Your task to perform on an android device: see creations saved in the google photos Image 0: 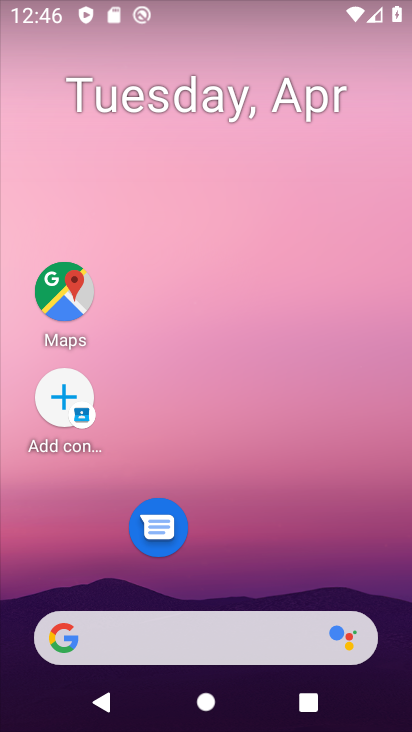
Step 0: drag from (278, 585) to (278, 29)
Your task to perform on an android device: see creations saved in the google photos Image 1: 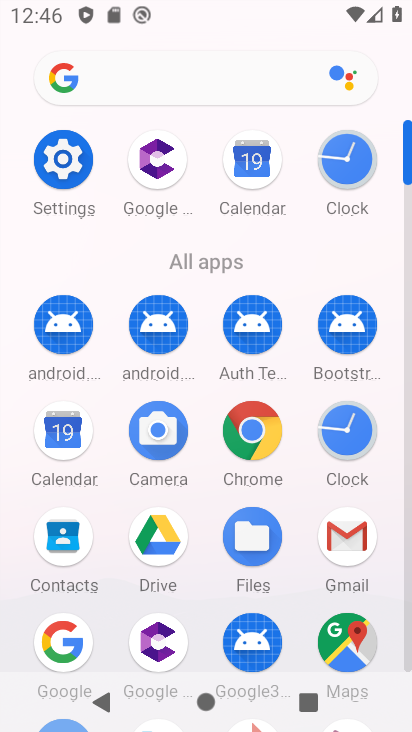
Step 1: drag from (219, 599) to (238, 288)
Your task to perform on an android device: see creations saved in the google photos Image 2: 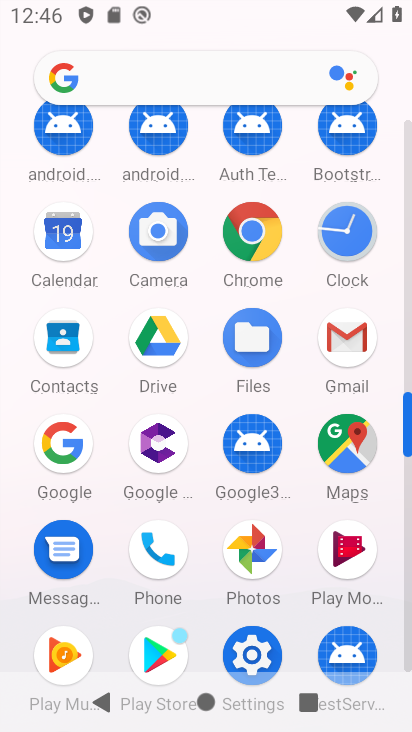
Step 2: drag from (188, 562) to (216, 410)
Your task to perform on an android device: see creations saved in the google photos Image 3: 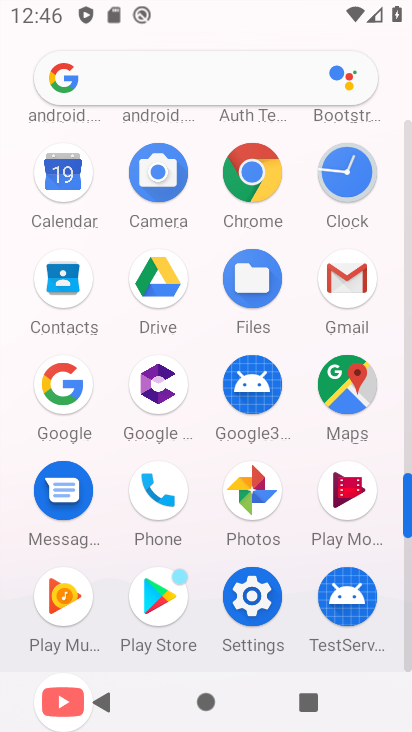
Step 3: click (157, 599)
Your task to perform on an android device: see creations saved in the google photos Image 4: 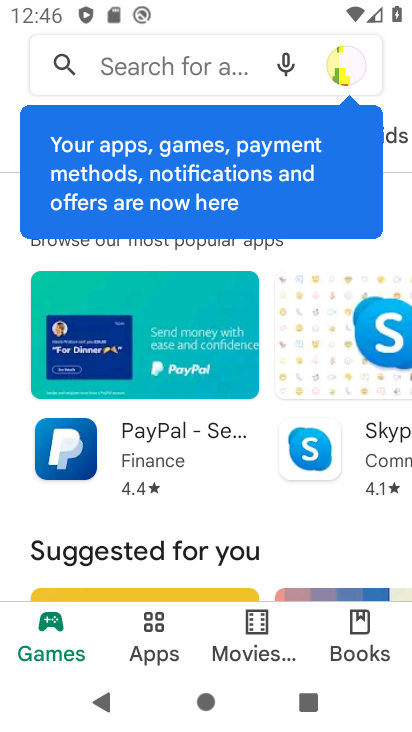
Step 4: click (161, 619)
Your task to perform on an android device: see creations saved in the google photos Image 5: 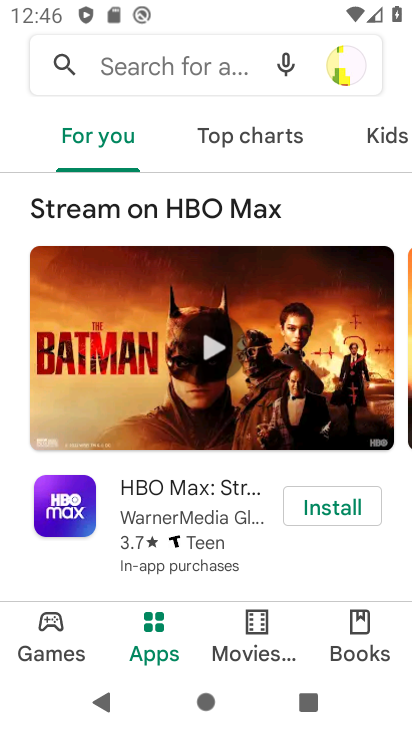
Step 5: click (159, 625)
Your task to perform on an android device: see creations saved in the google photos Image 6: 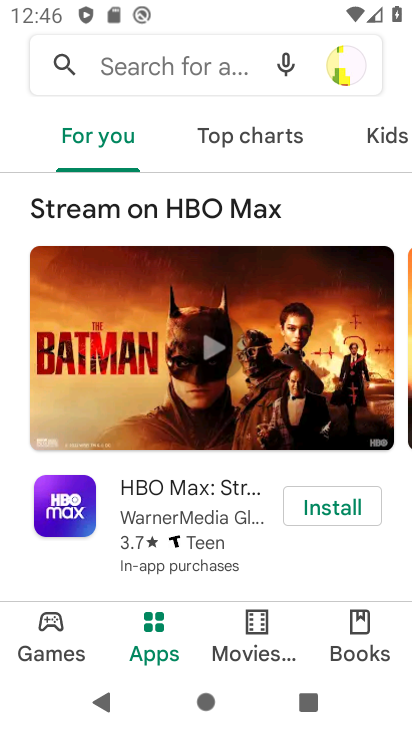
Step 6: drag from (287, 556) to (332, 223)
Your task to perform on an android device: see creations saved in the google photos Image 7: 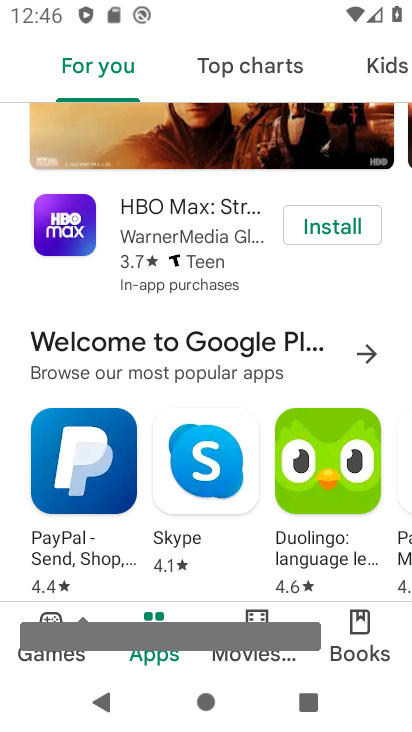
Step 7: drag from (266, 524) to (307, 242)
Your task to perform on an android device: see creations saved in the google photos Image 8: 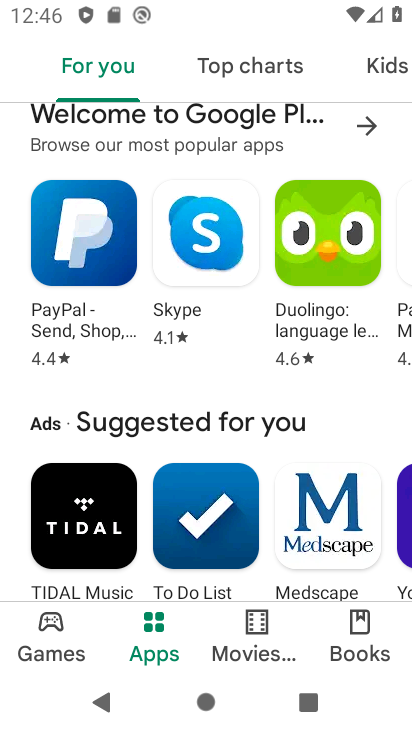
Step 8: drag from (285, 497) to (323, 193)
Your task to perform on an android device: see creations saved in the google photos Image 9: 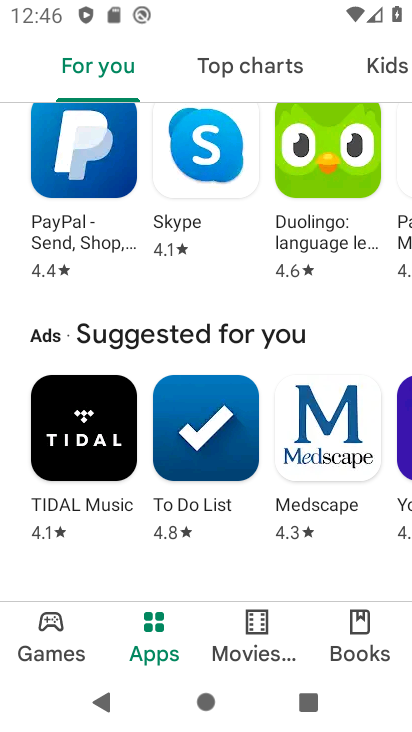
Step 9: drag from (292, 209) to (357, 528)
Your task to perform on an android device: see creations saved in the google photos Image 10: 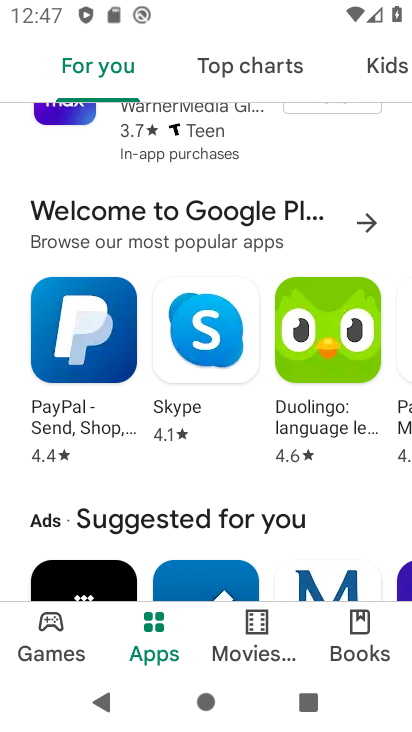
Step 10: drag from (280, 189) to (307, 502)
Your task to perform on an android device: see creations saved in the google photos Image 11: 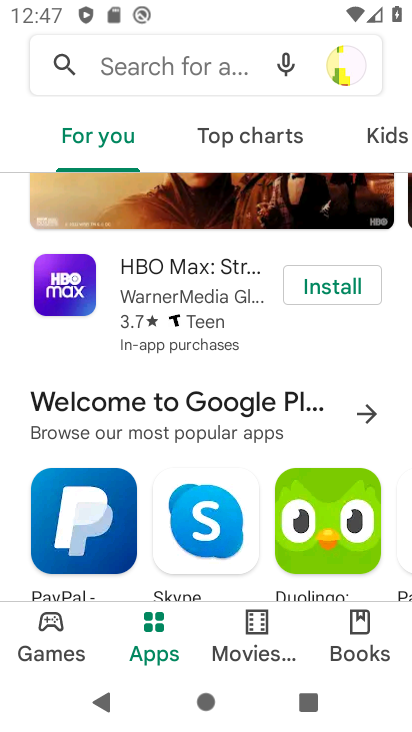
Step 11: drag from (305, 149) to (4, 156)
Your task to perform on an android device: see creations saved in the google photos Image 12: 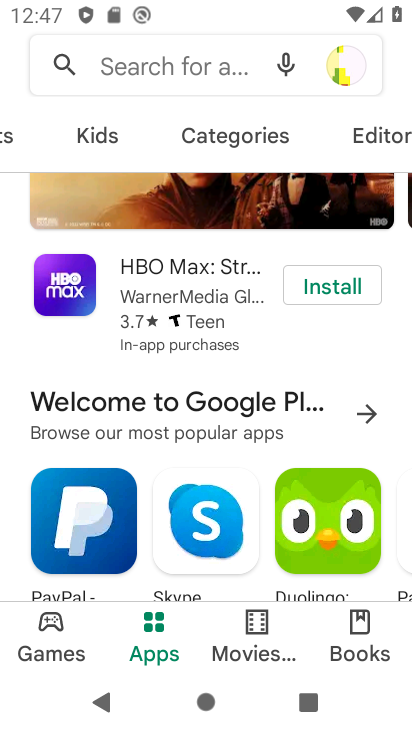
Step 12: drag from (264, 127) to (89, 166)
Your task to perform on an android device: see creations saved in the google photos Image 13: 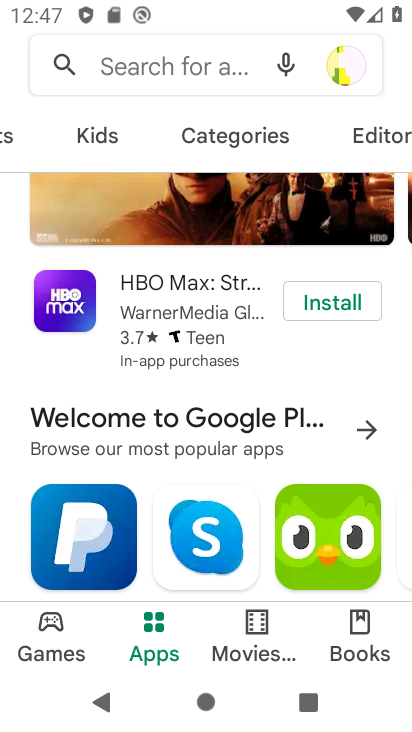
Step 13: drag from (324, 147) to (151, 152)
Your task to perform on an android device: see creations saved in the google photos Image 14: 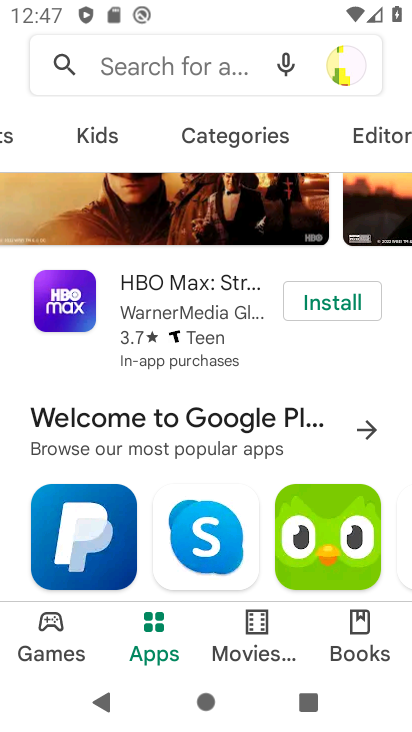
Step 14: drag from (309, 127) to (99, 123)
Your task to perform on an android device: see creations saved in the google photos Image 15: 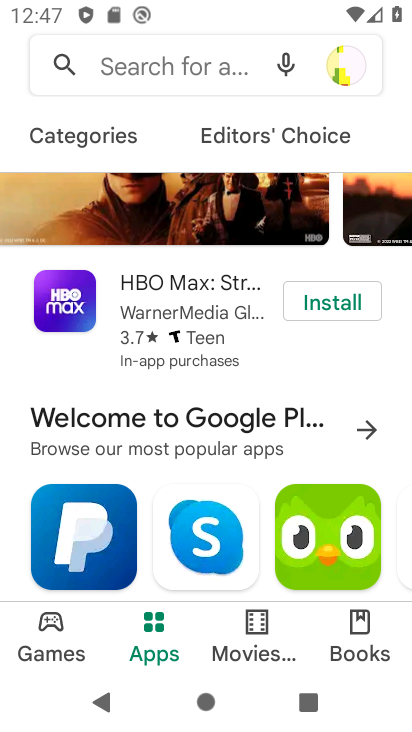
Step 15: drag from (375, 134) to (119, 131)
Your task to perform on an android device: see creations saved in the google photos Image 16: 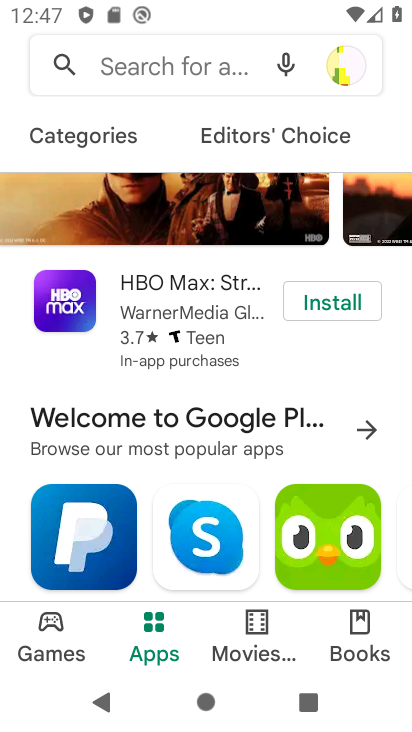
Step 16: drag from (166, 146) to (408, 121)
Your task to perform on an android device: see creations saved in the google photos Image 17: 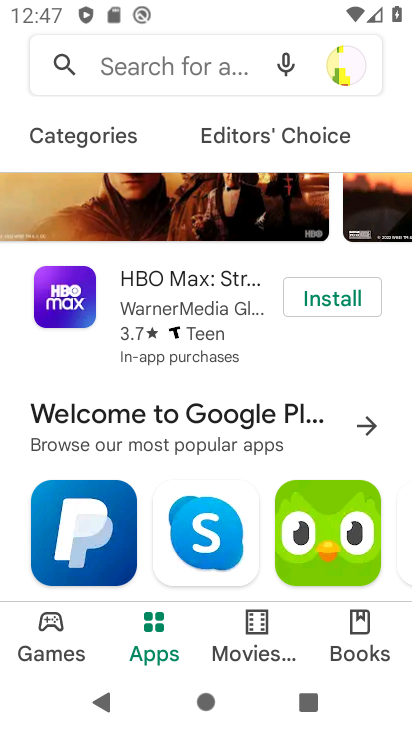
Step 17: click (125, 126)
Your task to perform on an android device: see creations saved in the google photos Image 18: 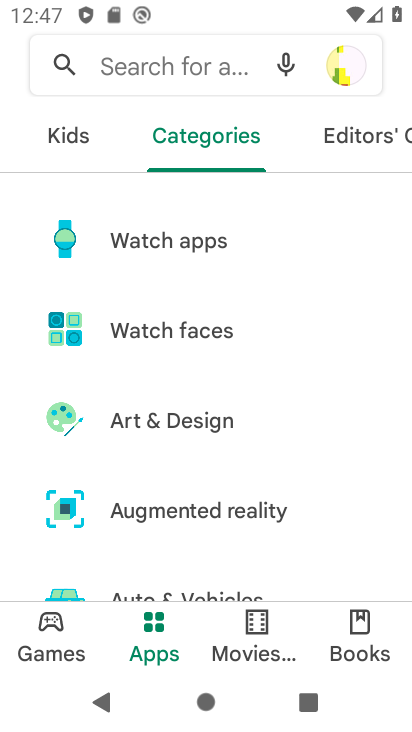
Step 18: drag from (262, 444) to (267, 320)
Your task to perform on an android device: see creations saved in the google photos Image 19: 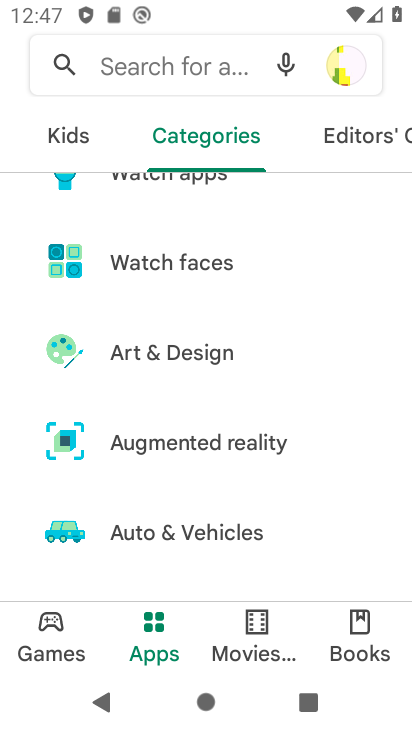
Step 19: drag from (316, 490) to (322, 344)
Your task to perform on an android device: see creations saved in the google photos Image 20: 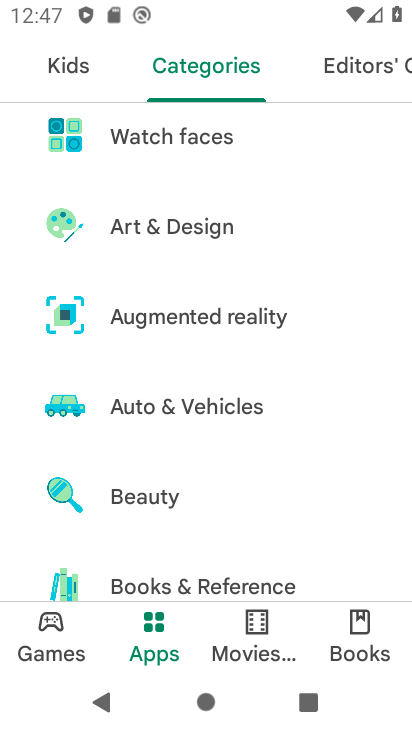
Step 20: drag from (294, 513) to (309, 318)
Your task to perform on an android device: see creations saved in the google photos Image 21: 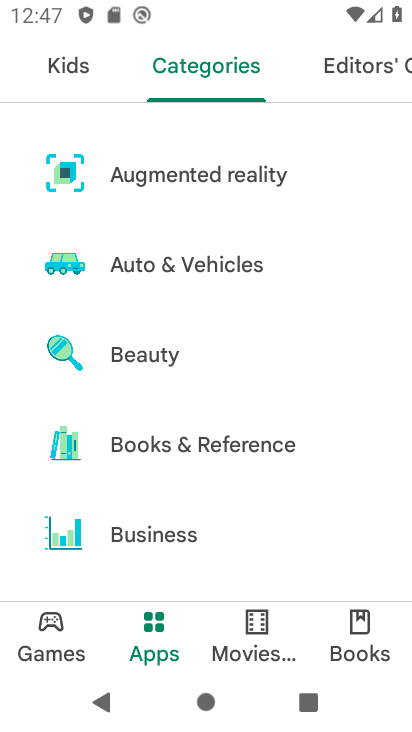
Step 21: drag from (295, 543) to (330, 337)
Your task to perform on an android device: see creations saved in the google photos Image 22: 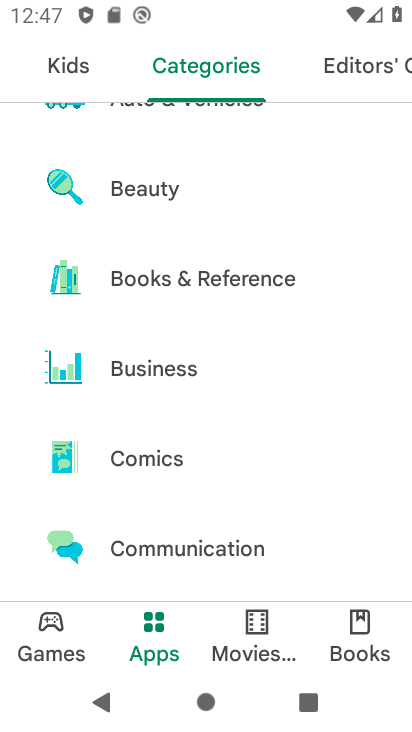
Step 22: drag from (254, 537) to (286, 330)
Your task to perform on an android device: see creations saved in the google photos Image 23: 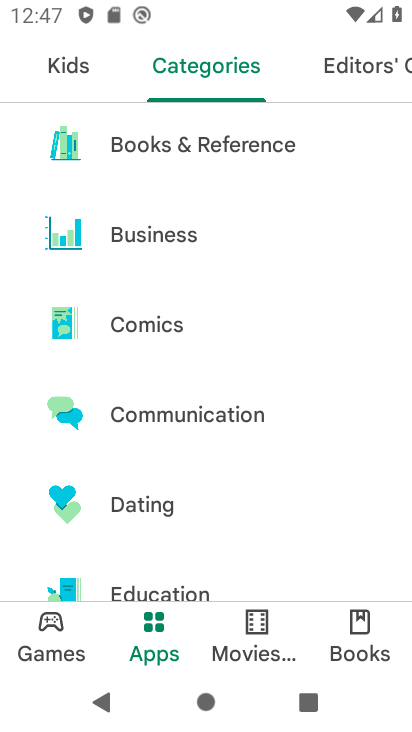
Step 23: drag from (239, 567) to (282, 360)
Your task to perform on an android device: see creations saved in the google photos Image 24: 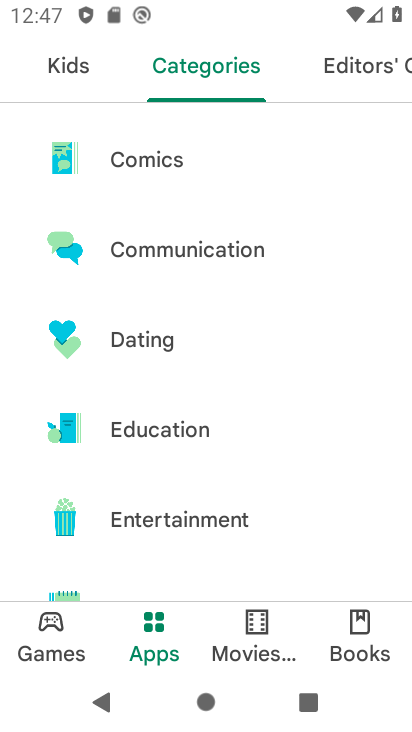
Step 24: drag from (280, 433) to (319, 314)
Your task to perform on an android device: see creations saved in the google photos Image 25: 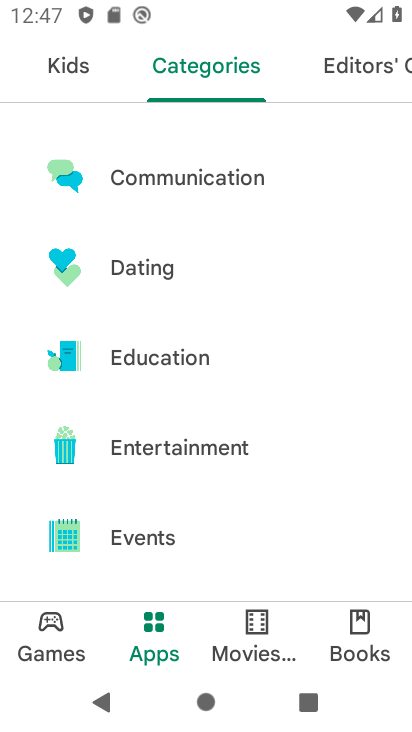
Step 25: drag from (279, 566) to (311, 356)
Your task to perform on an android device: see creations saved in the google photos Image 26: 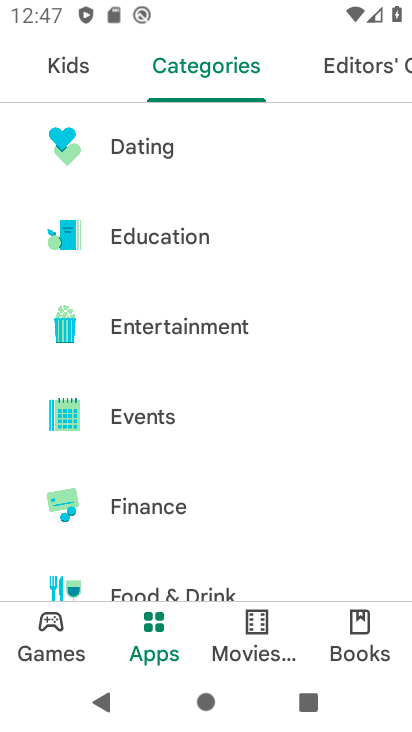
Step 26: drag from (295, 564) to (323, 323)
Your task to perform on an android device: see creations saved in the google photos Image 27: 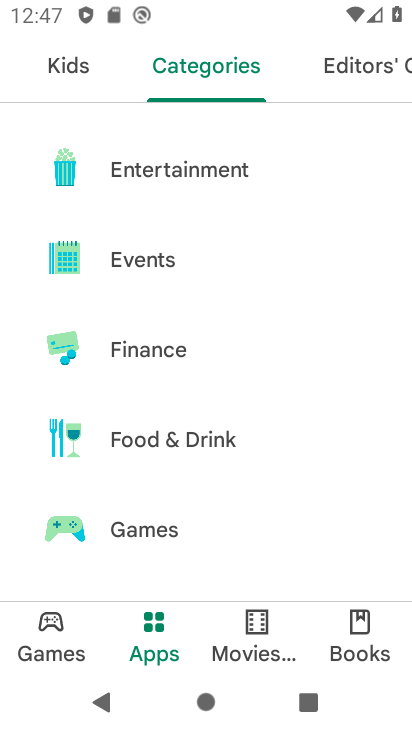
Step 27: drag from (253, 530) to (279, 361)
Your task to perform on an android device: see creations saved in the google photos Image 28: 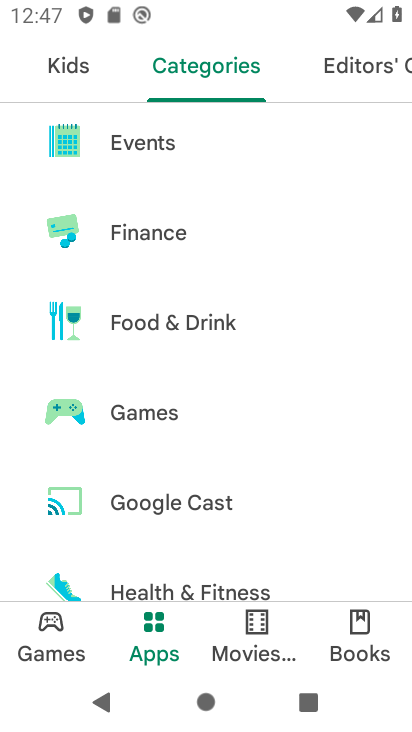
Step 28: drag from (243, 542) to (286, 277)
Your task to perform on an android device: see creations saved in the google photos Image 29: 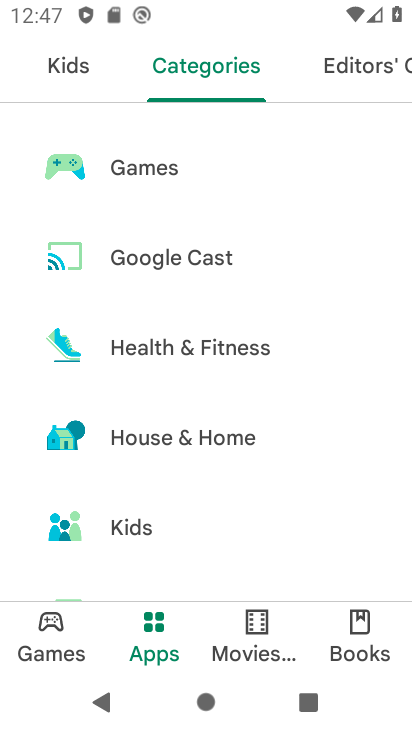
Step 29: drag from (281, 526) to (296, 237)
Your task to perform on an android device: see creations saved in the google photos Image 30: 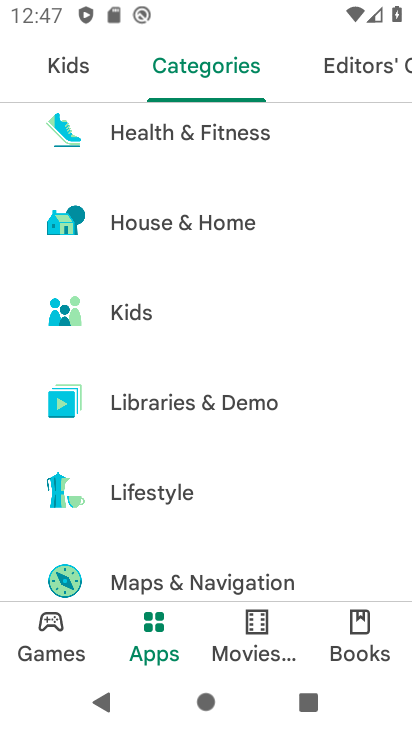
Step 30: drag from (253, 526) to (302, 209)
Your task to perform on an android device: see creations saved in the google photos Image 31: 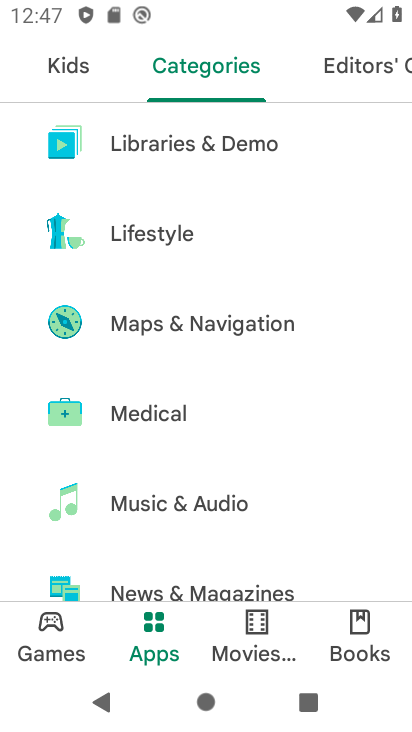
Step 31: drag from (305, 544) to (298, 254)
Your task to perform on an android device: see creations saved in the google photos Image 32: 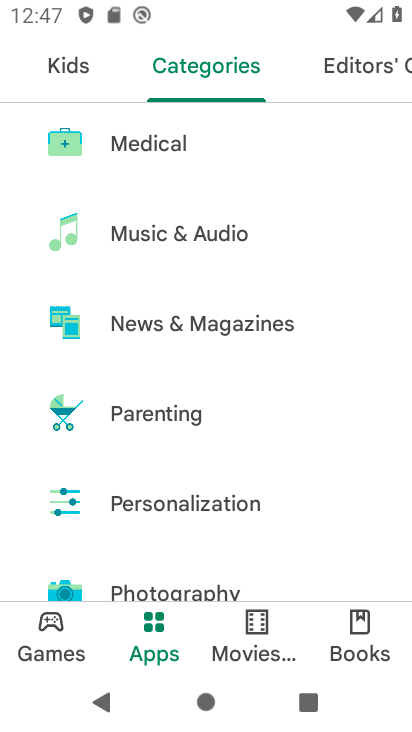
Step 32: drag from (299, 565) to (305, 383)
Your task to perform on an android device: see creations saved in the google photos Image 33: 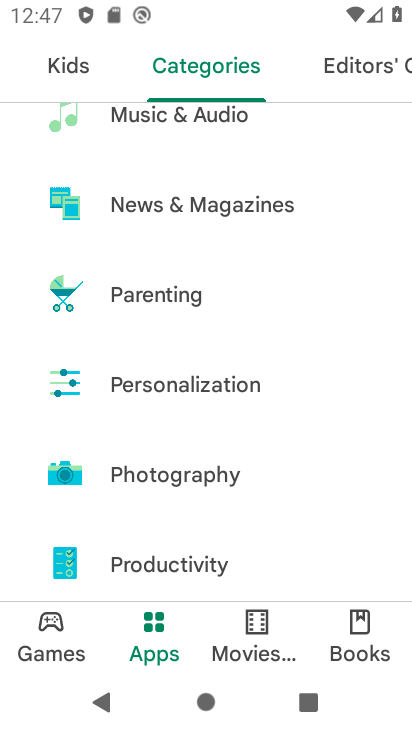
Step 33: press back button
Your task to perform on an android device: see creations saved in the google photos Image 34: 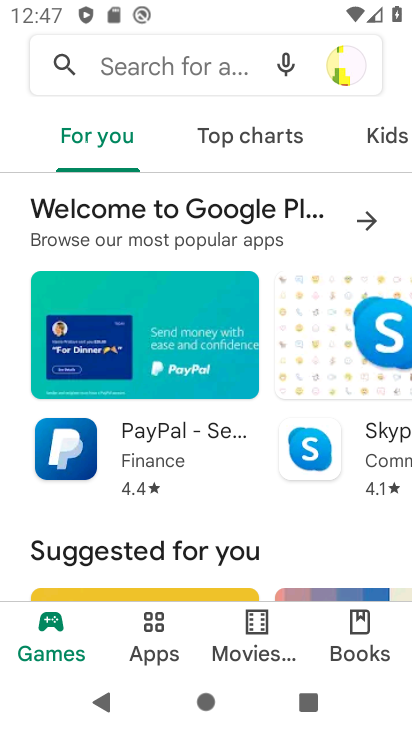
Step 34: press back button
Your task to perform on an android device: see creations saved in the google photos Image 35: 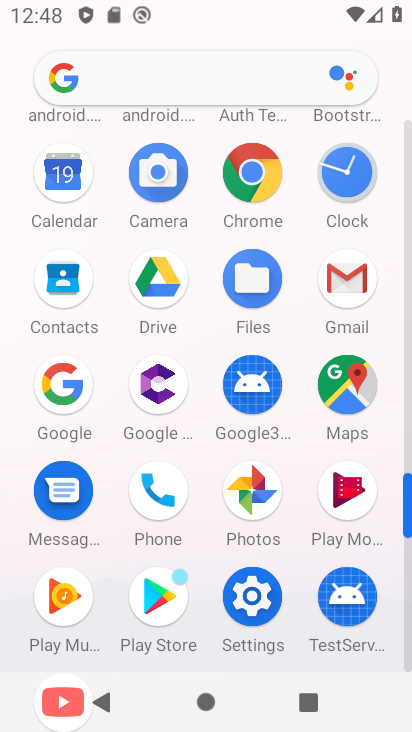
Step 35: click (251, 493)
Your task to perform on an android device: see creations saved in the google photos Image 36: 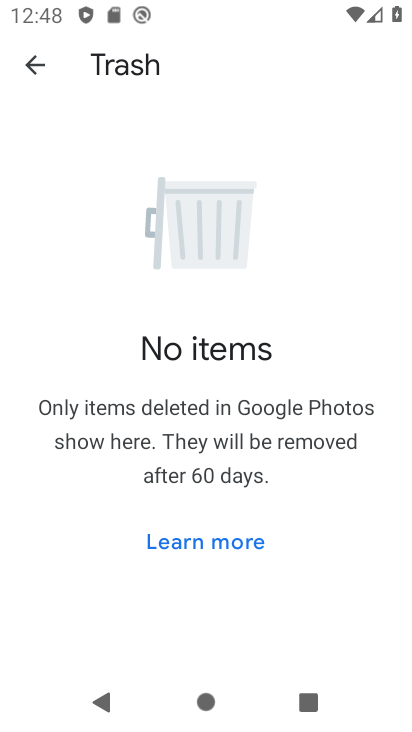
Step 36: press back button
Your task to perform on an android device: see creations saved in the google photos Image 37: 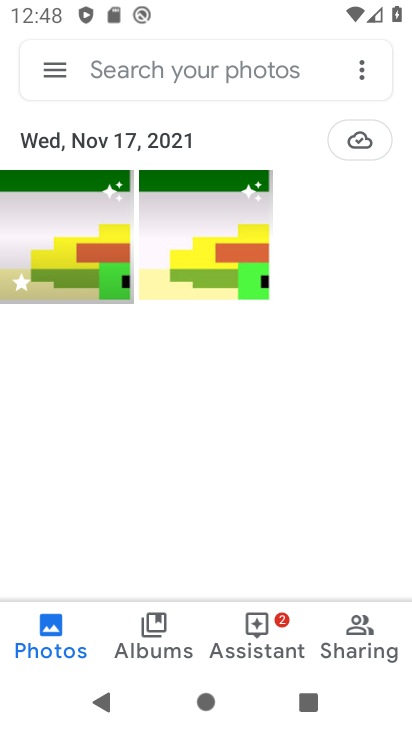
Step 37: click (360, 76)
Your task to perform on an android device: see creations saved in the google photos Image 38: 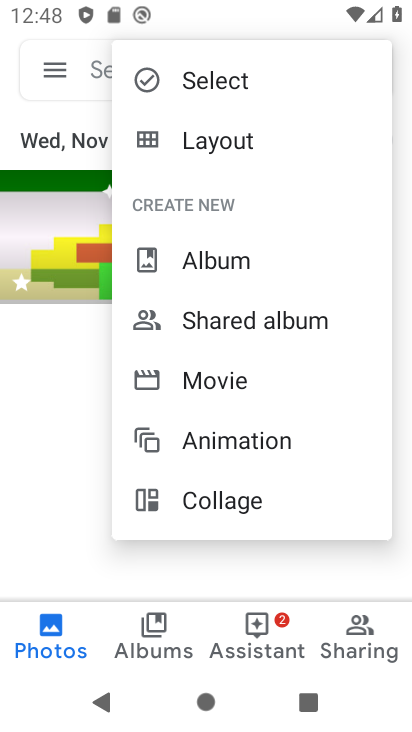
Step 38: drag from (279, 484) to (310, 265)
Your task to perform on an android device: see creations saved in the google photos Image 39: 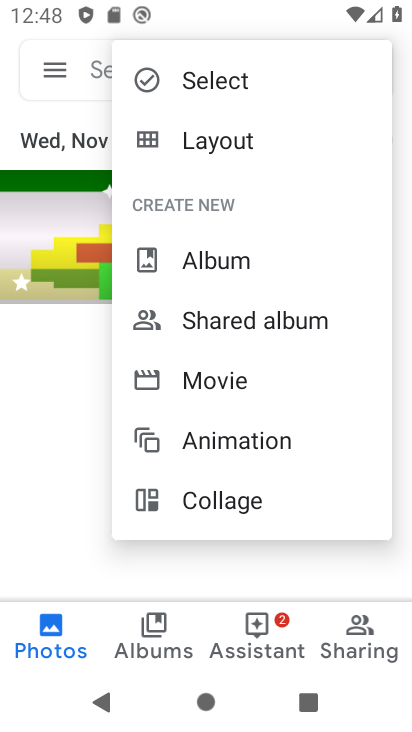
Step 39: click (254, 627)
Your task to perform on an android device: see creations saved in the google photos Image 40: 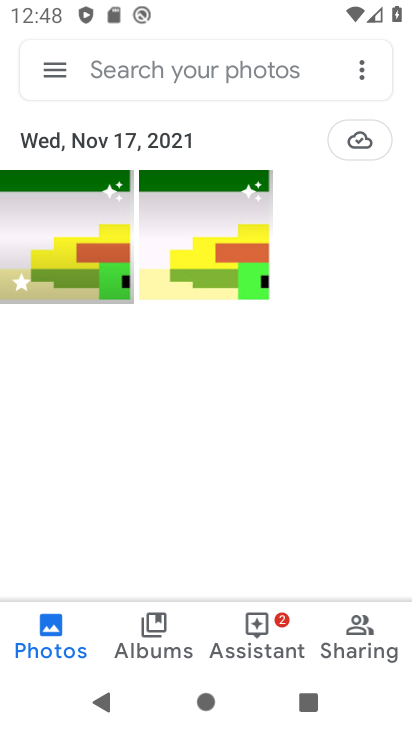
Step 40: click (258, 617)
Your task to perform on an android device: see creations saved in the google photos Image 41: 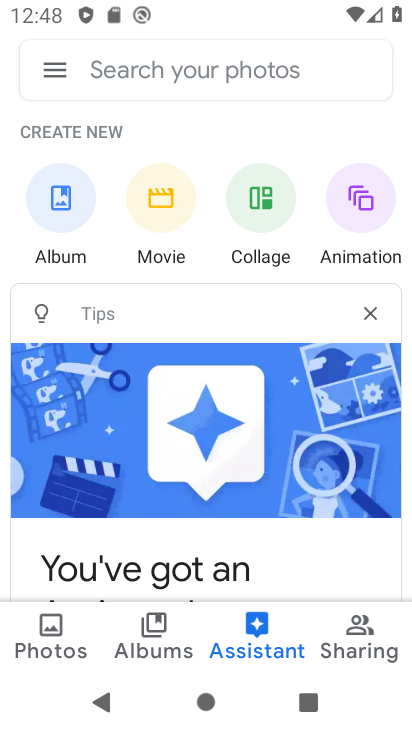
Step 41: drag from (306, 520) to (319, 263)
Your task to perform on an android device: see creations saved in the google photos Image 42: 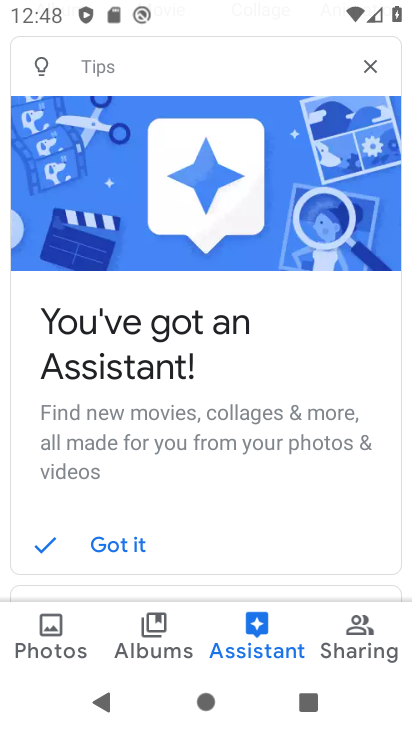
Step 42: drag from (278, 522) to (299, 331)
Your task to perform on an android device: see creations saved in the google photos Image 43: 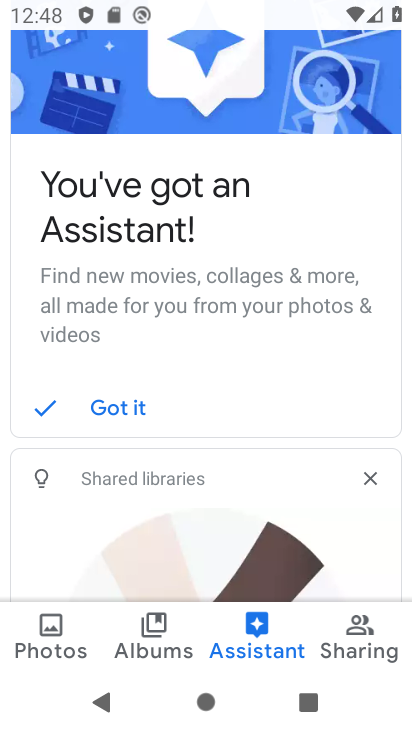
Step 43: drag from (278, 541) to (297, 339)
Your task to perform on an android device: see creations saved in the google photos Image 44: 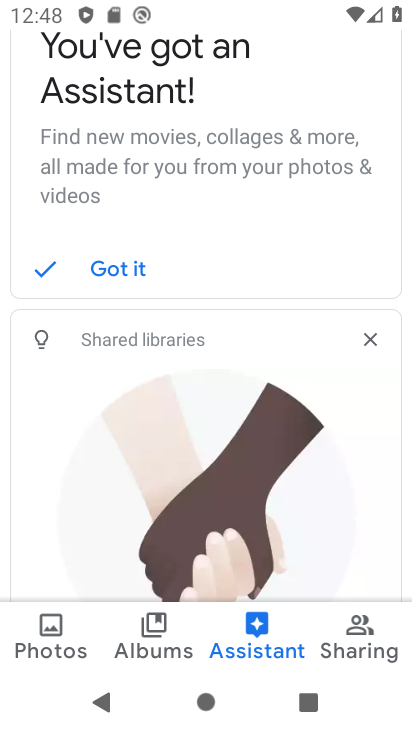
Step 44: drag from (305, 545) to (338, 282)
Your task to perform on an android device: see creations saved in the google photos Image 45: 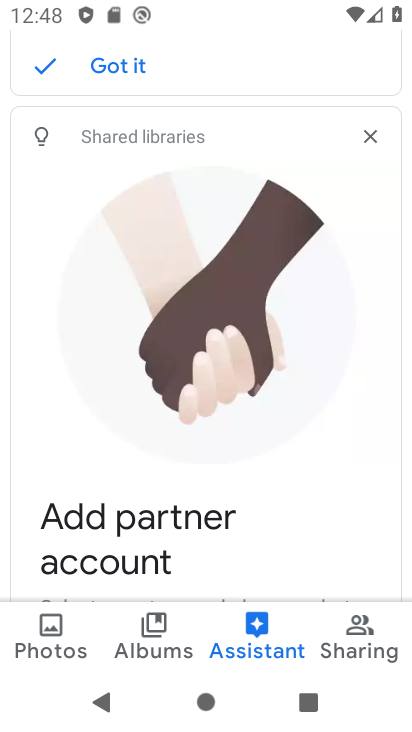
Step 45: drag from (286, 509) to (350, 198)
Your task to perform on an android device: see creations saved in the google photos Image 46: 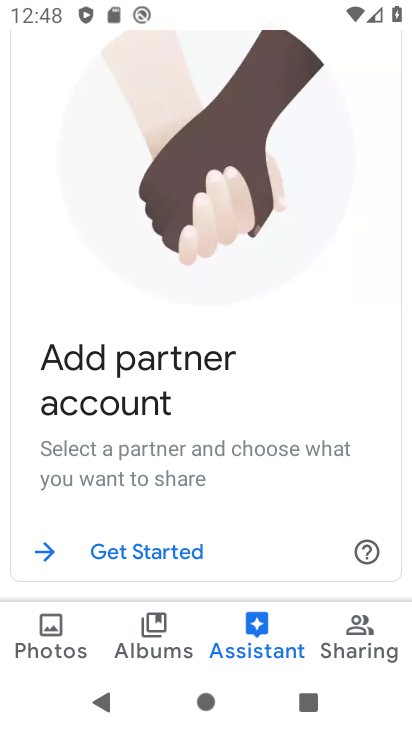
Step 46: drag from (280, 503) to (355, 187)
Your task to perform on an android device: see creations saved in the google photos Image 47: 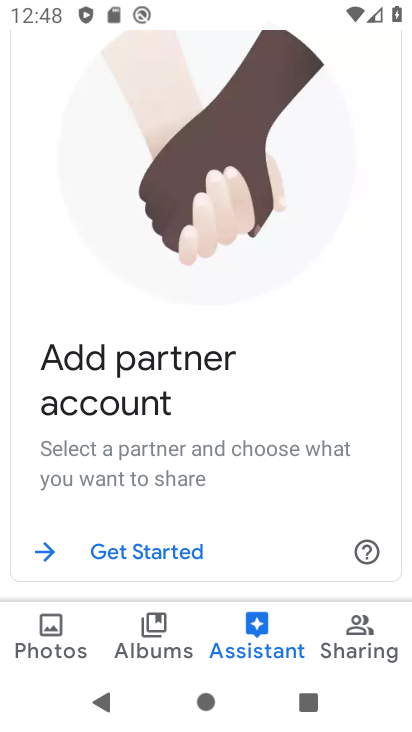
Step 47: drag from (246, 536) to (318, 205)
Your task to perform on an android device: see creations saved in the google photos Image 48: 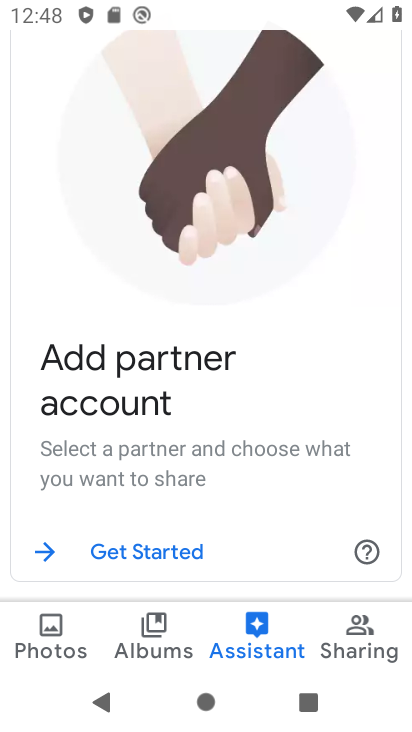
Step 48: click (61, 626)
Your task to perform on an android device: see creations saved in the google photos Image 49: 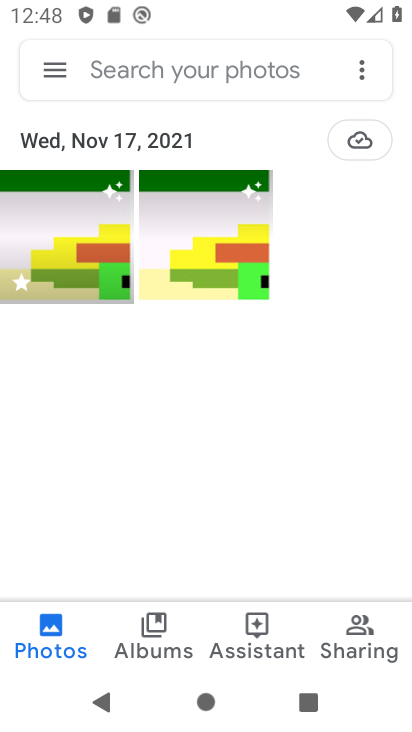
Step 49: task complete